Your task to perform on an android device: turn pop-ups on in chrome Image 0: 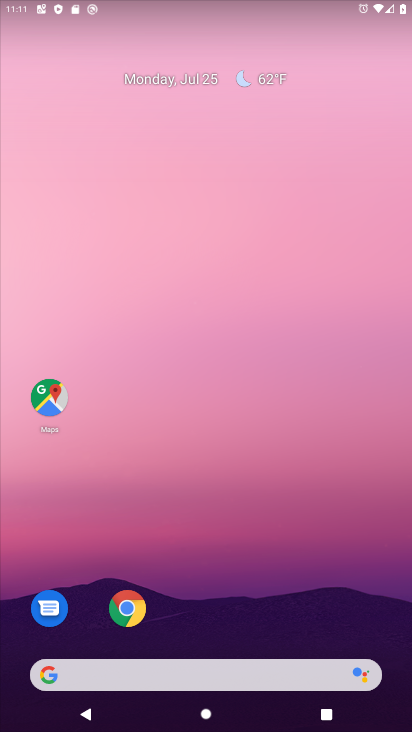
Step 0: click (125, 607)
Your task to perform on an android device: turn pop-ups on in chrome Image 1: 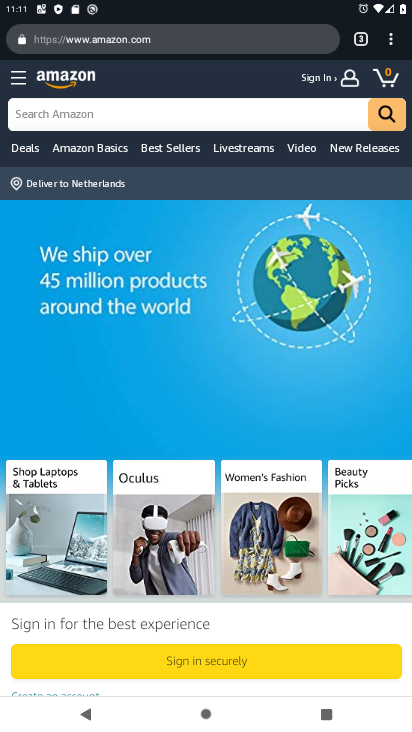
Step 1: click (386, 34)
Your task to perform on an android device: turn pop-ups on in chrome Image 2: 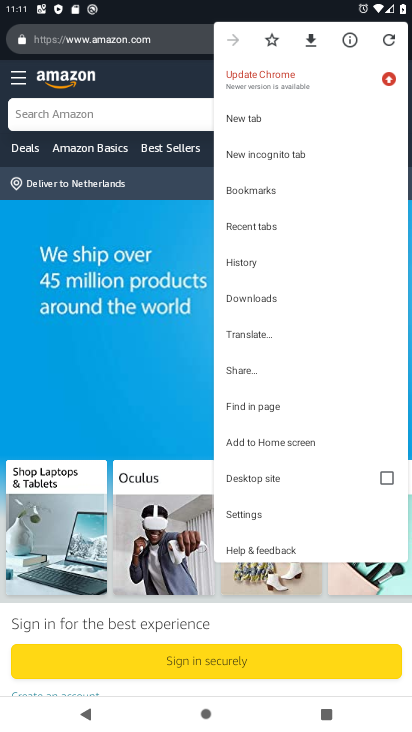
Step 2: click (252, 515)
Your task to perform on an android device: turn pop-ups on in chrome Image 3: 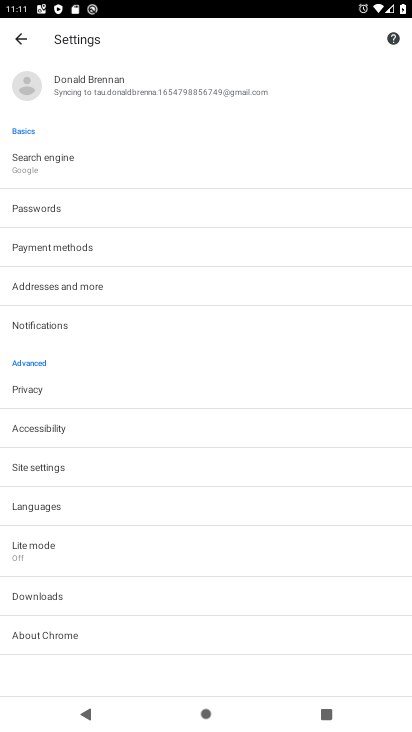
Step 3: click (48, 460)
Your task to perform on an android device: turn pop-ups on in chrome Image 4: 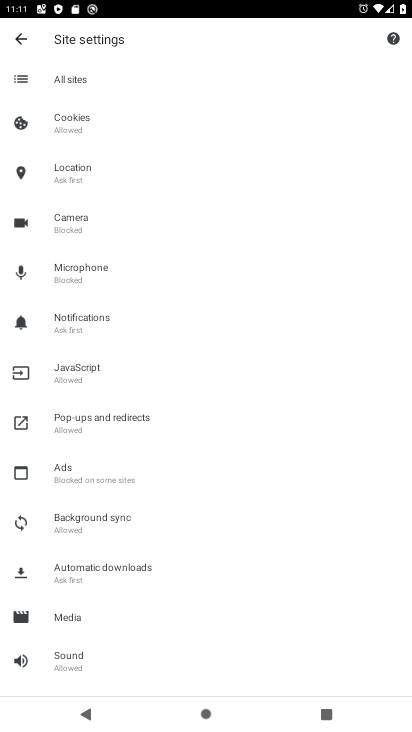
Step 4: click (105, 420)
Your task to perform on an android device: turn pop-ups on in chrome Image 5: 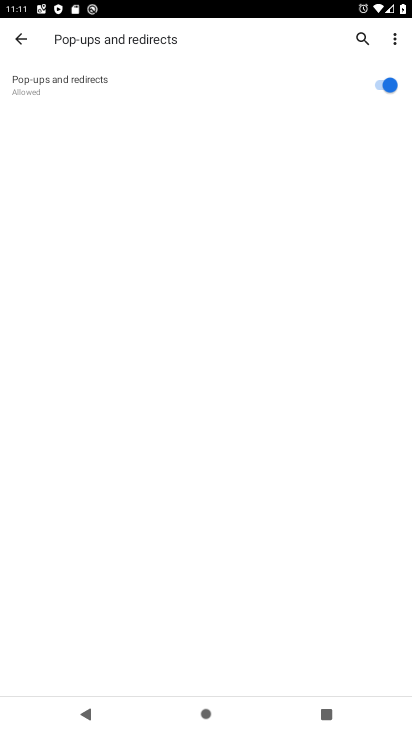
Step 5: task complete